Your task to perform on an android device: Open Amazon Image 0: 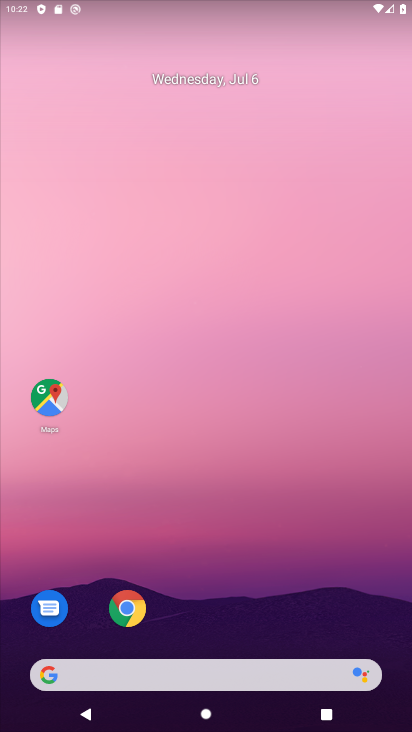
Step 0: drag from (272, 588) to (253, 71)
Your task to perform on an android device: Open Amazon Image 1: 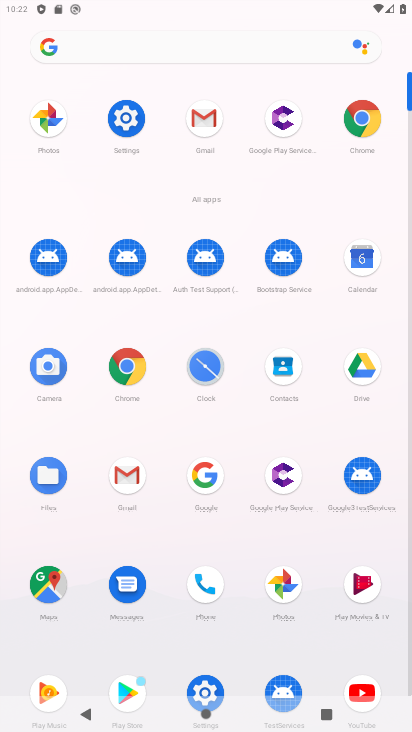
Step 1: click (355, 123)
Your task to perform on an android device: Open Amazon Image 2: 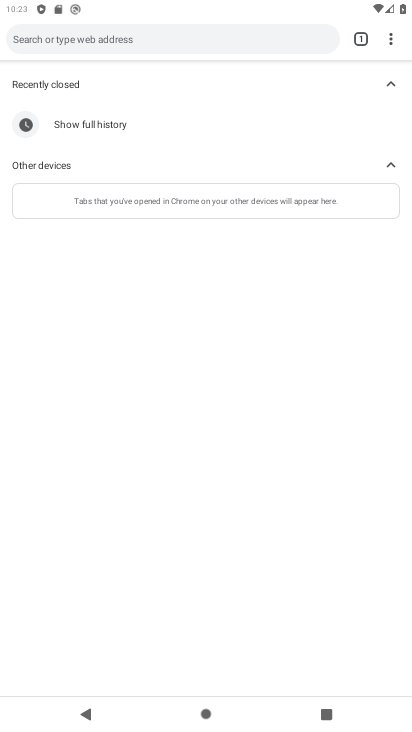
Step 2: drag from (389, 40) to (294, 70)
Your task to perform on an android device: Open Amazon Image 3: 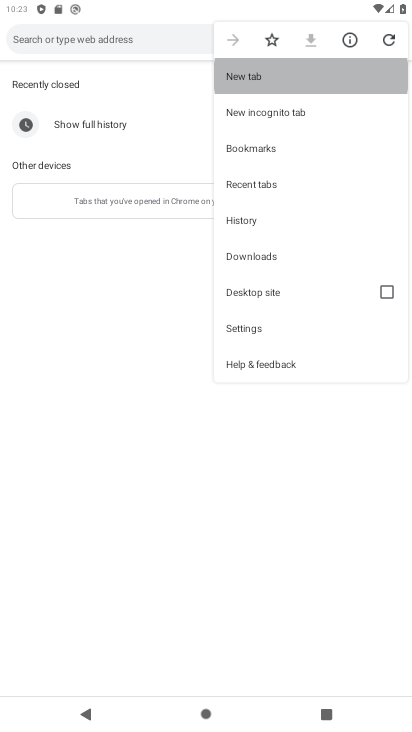
Step 3: click (231, 70)
Your task to perform on an android device: Open Amazon Image 4: 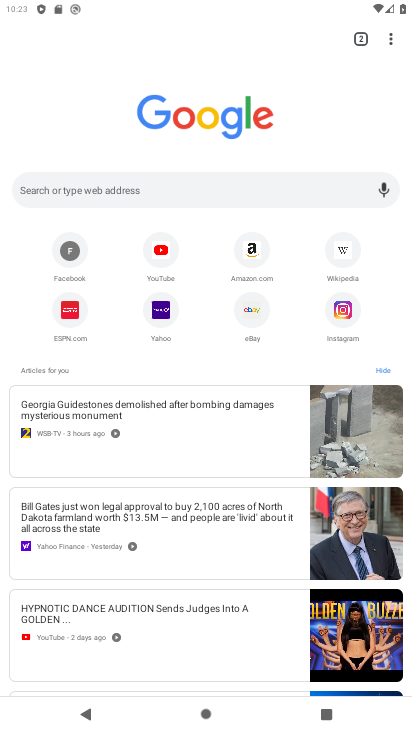
Step 4: click (249, 243)
Your task to perform on an android device: Open Amazon Image 5: 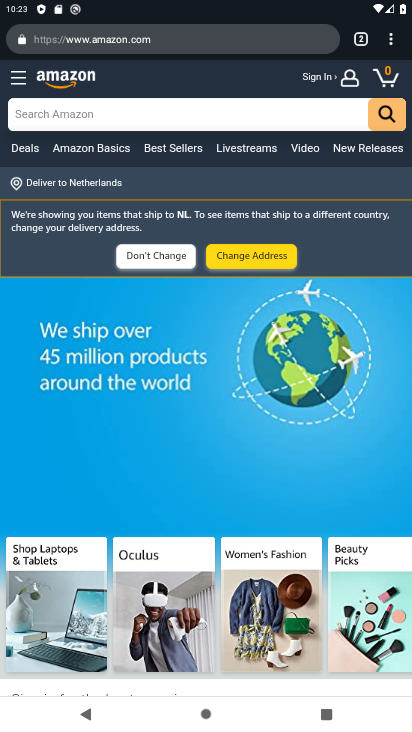
Step 5: task complete